Your task to perform on an android device: See recent photos Image 0: 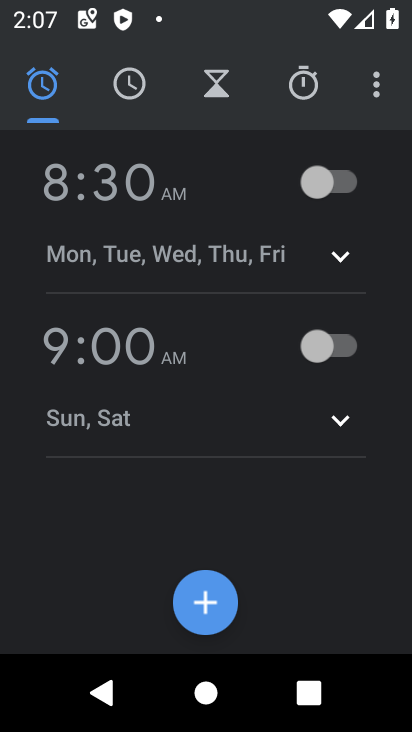
Step 0: press home button
Your task to perform on an android device: See recent photos Image 1: 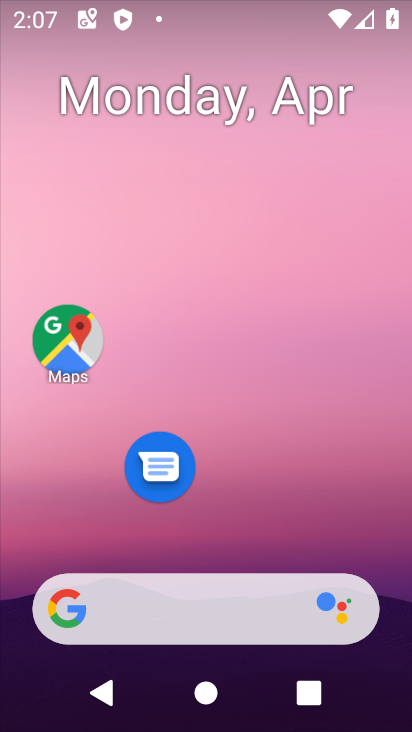
Step 1: drag from (296, 546) to (219, 69)
Your task to perform on an android device: See recent photos Image 2: 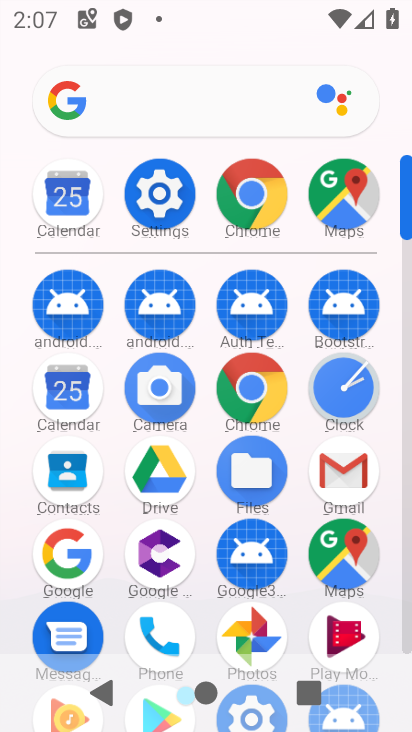
Step 2: click (237, 628)
Your task to perform on an android device: See recent photos Image 3: 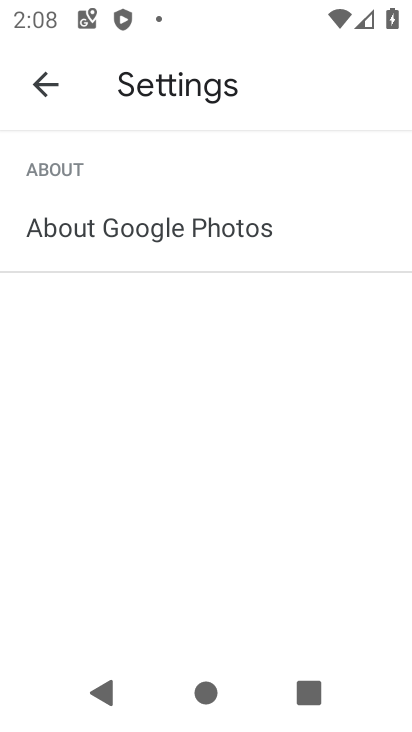
Step 3: click (51, 105)
Your task to perform on an android device: See recent photos Image 4: 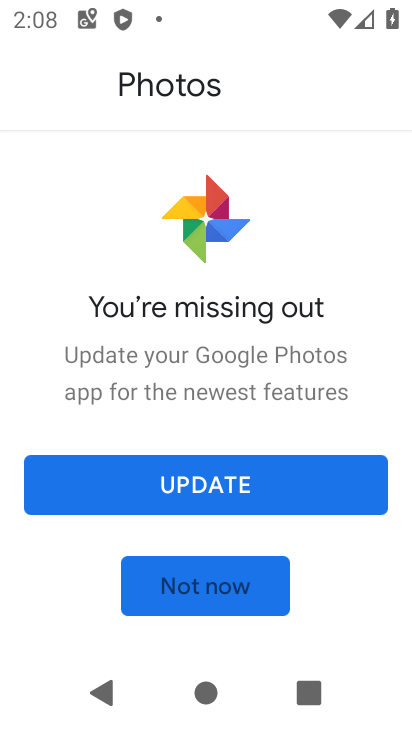
Step 4: click (279, 452)
Your task to perform on an android device: See recent photos Image 5: 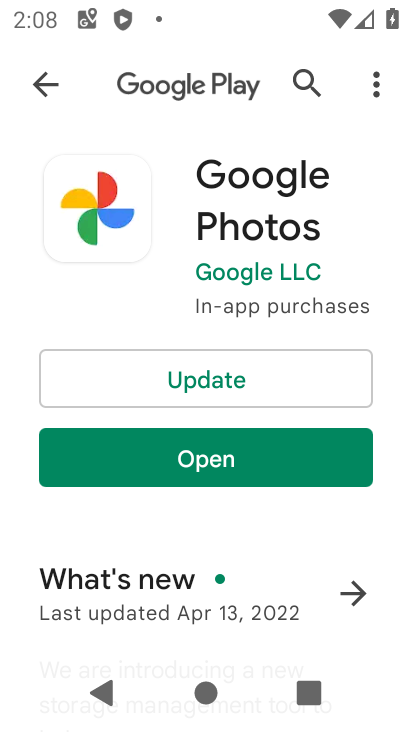
Step 5: click (286, 393)
Your task to perform on an android device: See recent photos Image 6: 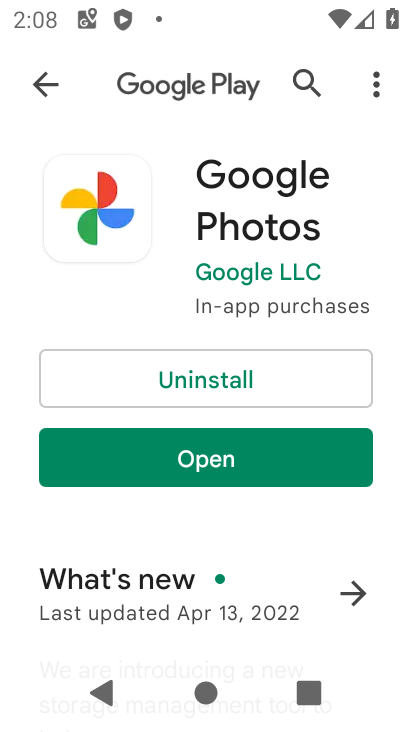
Step 6: click (197, 468)
Your task to perform on an android device: See recent photos Image 7: 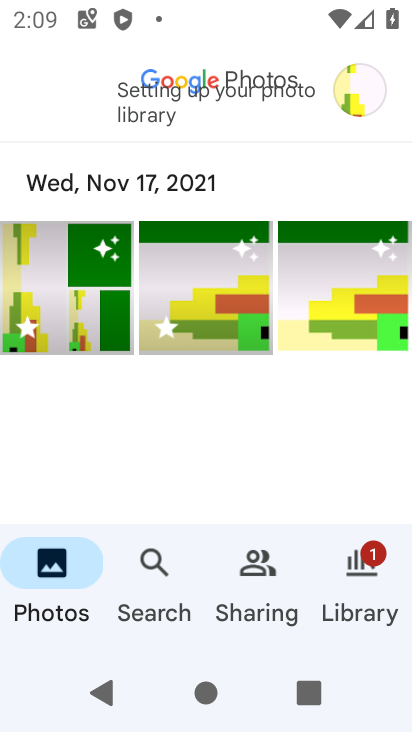
Step 7: task complete